Your task to perform on an android device: empty trash in the gmail app Image 0: 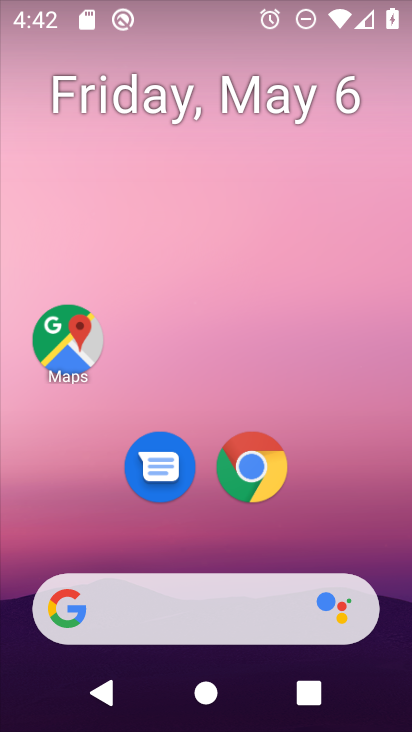
Step 0: drag from (316, 534) to (389, 111)
Your task to perform on an android device: empty trash in the gmail app Image 1: 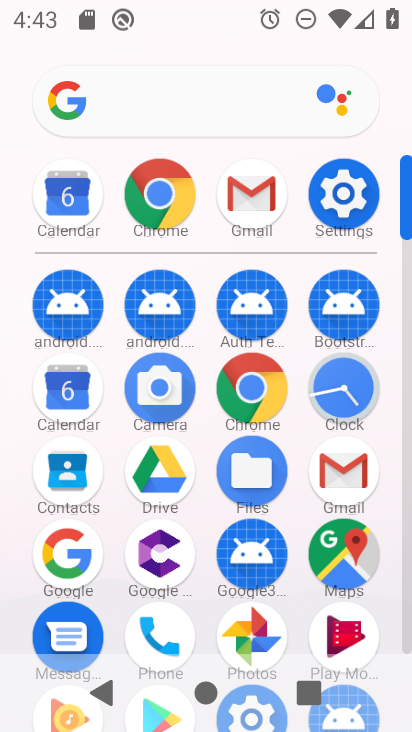
Step 1: click (255, 195)
Your task to perform on an android device: empty trash in the gmail app Image 2: 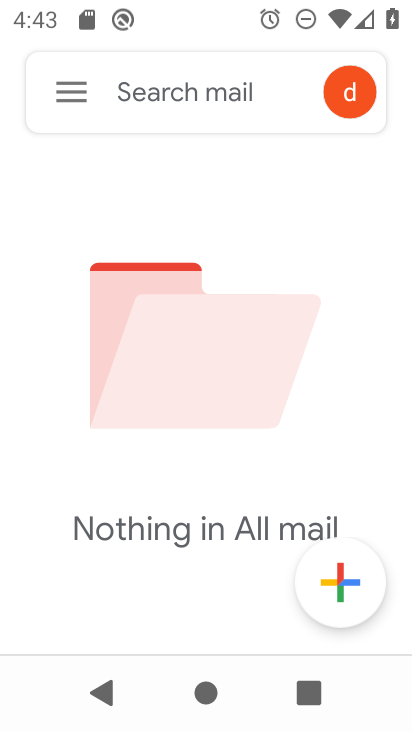
Step 2: click (76, 83)
Your task to perform on an android device: empty trash in the gmail app Image 3: 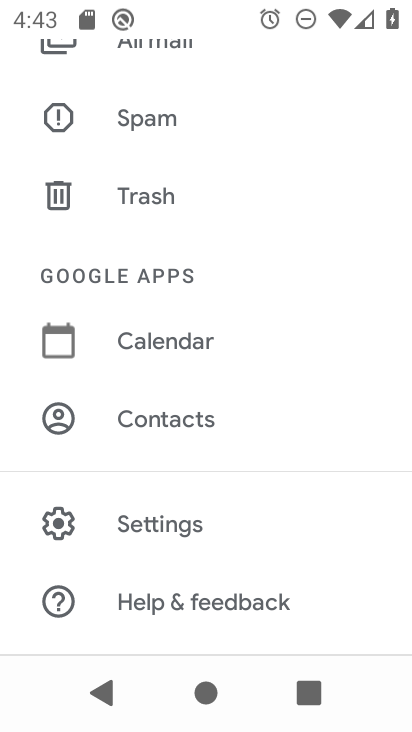
Step 3: click (164, 189)
Your task to perform on an android device: empty trash in the gmail app Image 4: 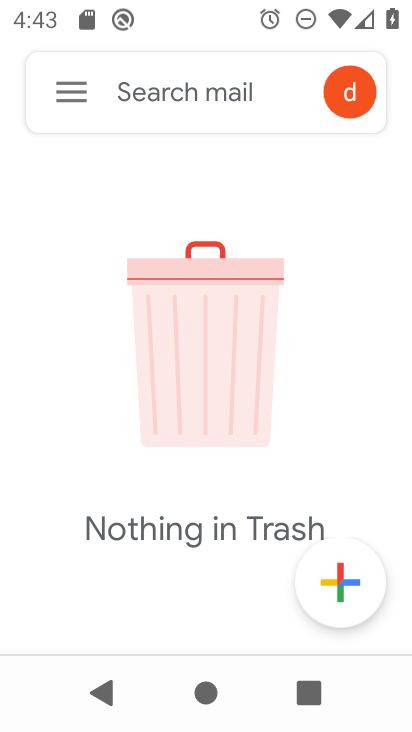
Step 4: task complete